Your task to perform on an android device: set the stopwatch Image 0: 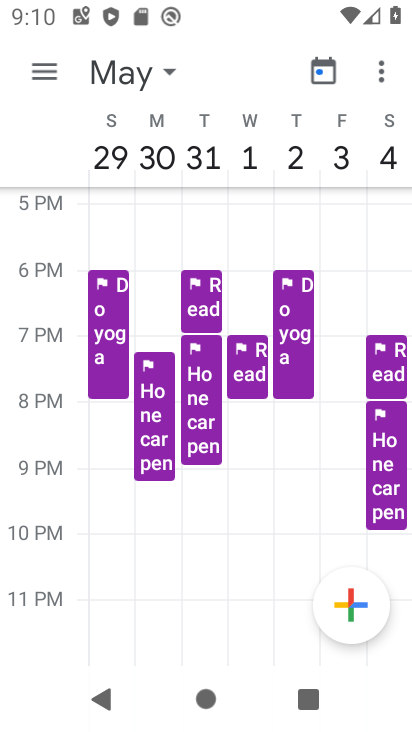
Step 0: press home button
Your task to perform on an android device: set the stopwatch Image 1: 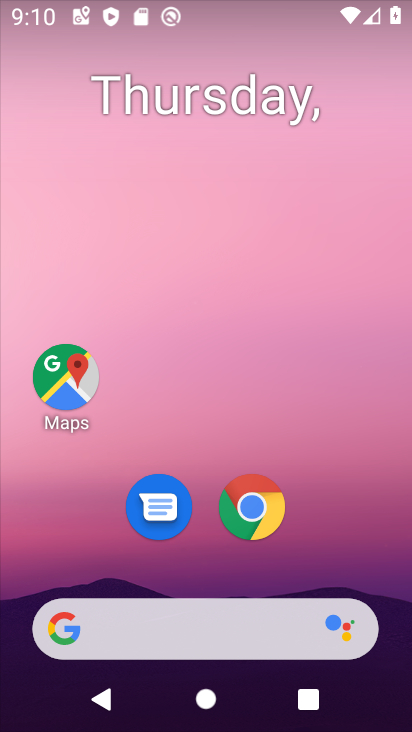
Step 1: drag from (196, 510) to (333, 8)
Your task to perform on an android device: set the stopwatch Image 2: 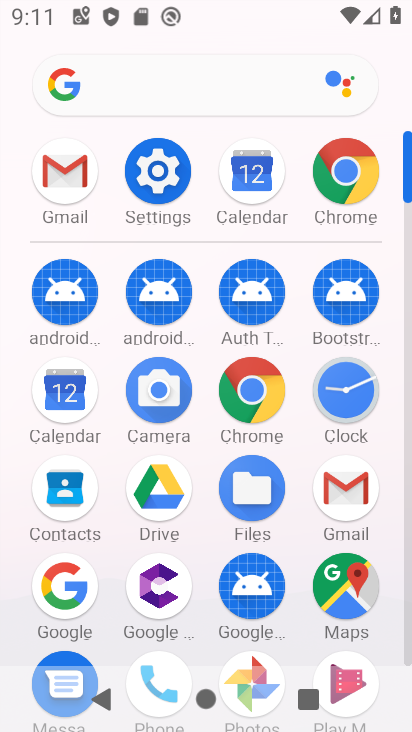
Step 2: click (346, 389)
Your task to perform on an android device: set the stopwatch Image 3: 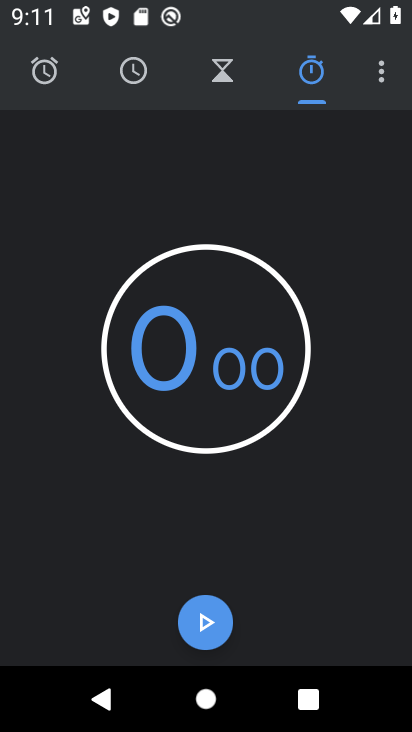
Step 3: click (200, 626)
Your task to perform on an android device: set the stopwatch Image 4: 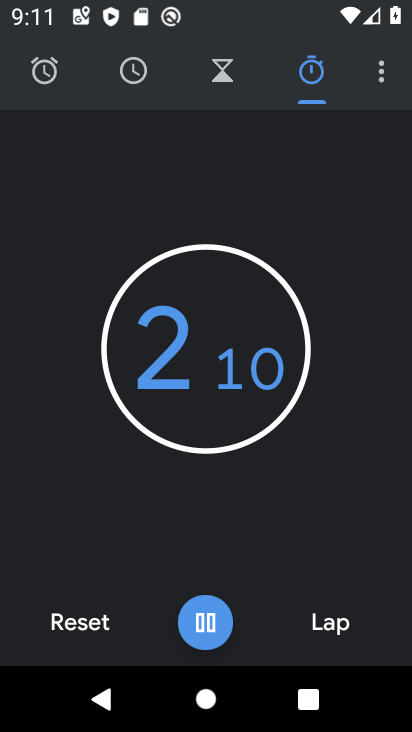
Step 4: task complete